Your task to perform on an android device: toggle pop-ups in chrome Image 0: 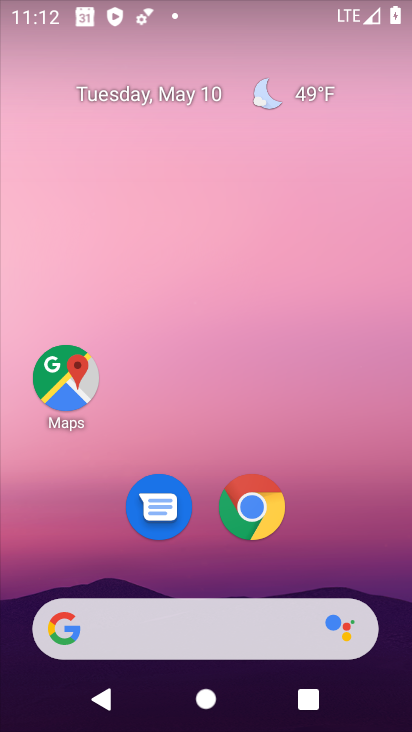
Step 0: click (246, 494)
Your task to perform on an android device: toggle pop-ups in chrome Image 1: 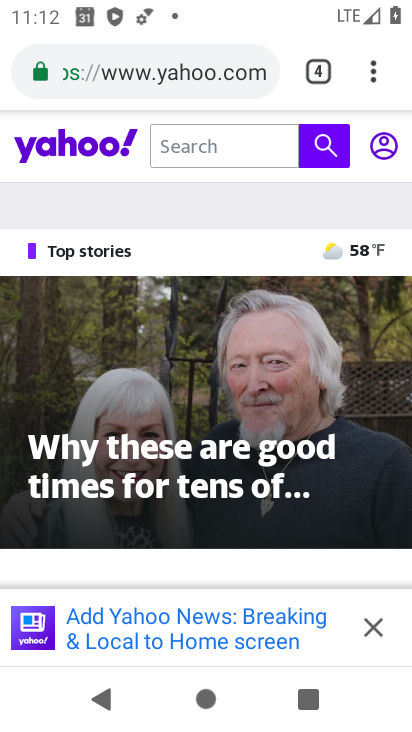
Step 1: click (380, 76)
Your task to perform on an android device: toggle pop-ups in chrome Image 2: 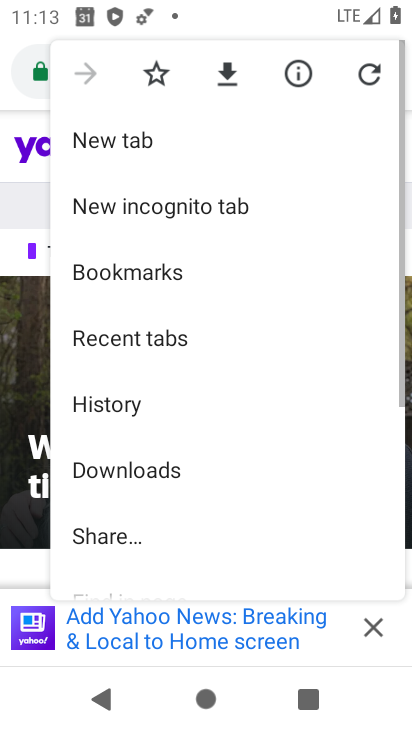
Step 2: drag from (267, 483) to (298, 116)
Your task to perform on an android device: toggle pop-ups in chrome Image 3: 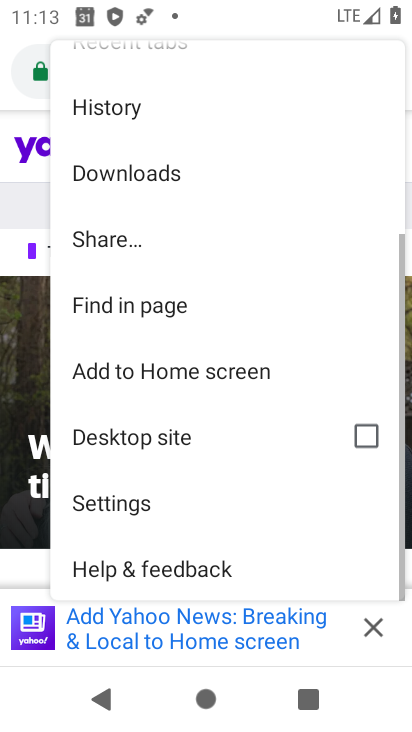
Step 3: click (173, 501)
Your task to perform on an android device: toggle pop-ups in chrome Image 4: 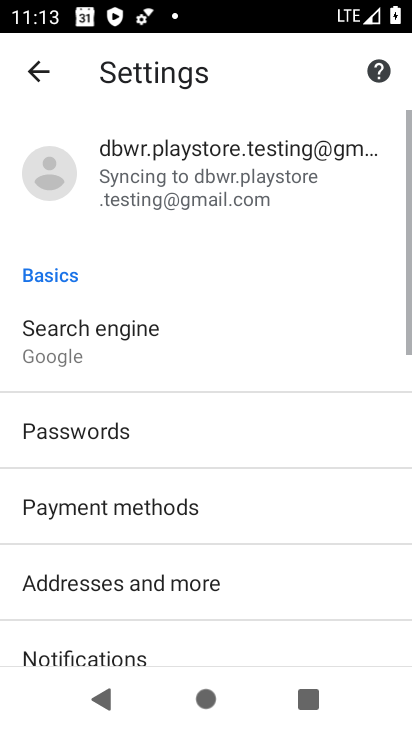
Step 4: drag from (174, 498) to (259, 103)
Your task to perform on an android device: toggle pop-ups in chrome Image 5: 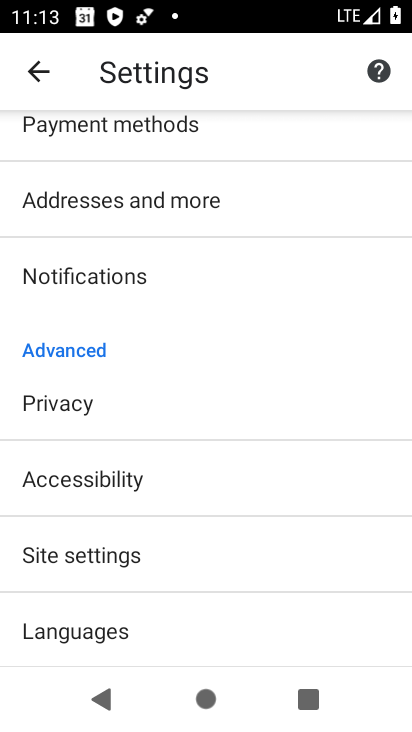
Step 5: click (169, 549)
Your task to perform on an android device: toggle pop-ups in chrome Image 6: 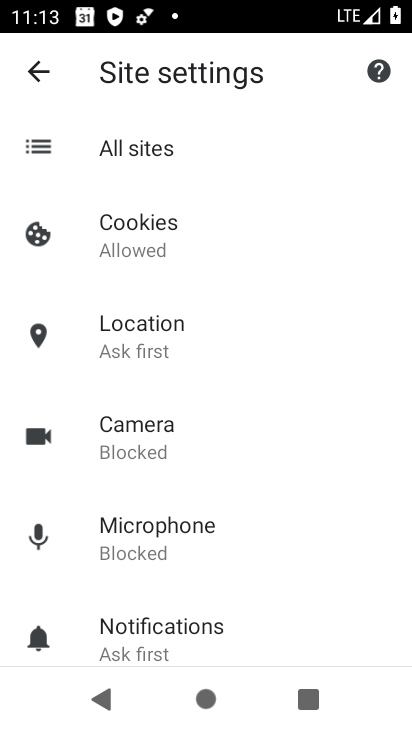
Step 6: drag from (169, 549) to (255, 166)
Your task to perform on an android device: toggle pop-ups in chrome Image 7: 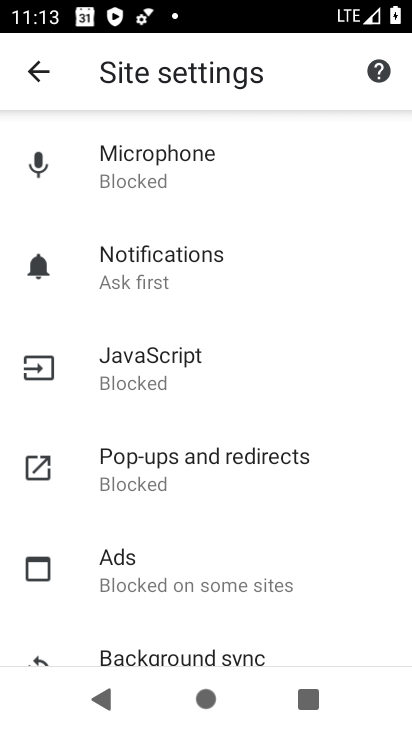
Step 7: click (256, 456)
Your task to perform on an android device: toggle pop-ups in chrome Image 8: 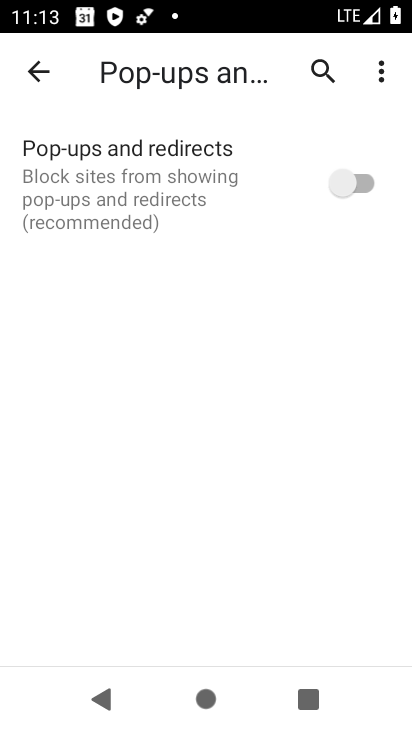
Step 8: click (340, 180)
Your task to perform on an android device: toggle pop-ups in chrome Image 9: 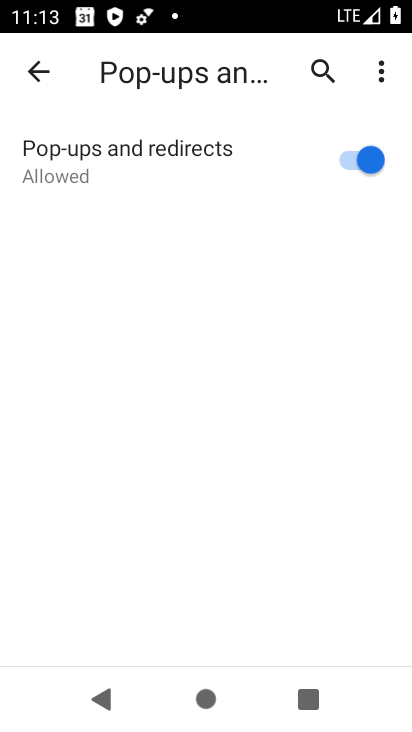
Step 9: task complete